Your task to perform on an android device: turn off data saver in the chrome app Image 0: 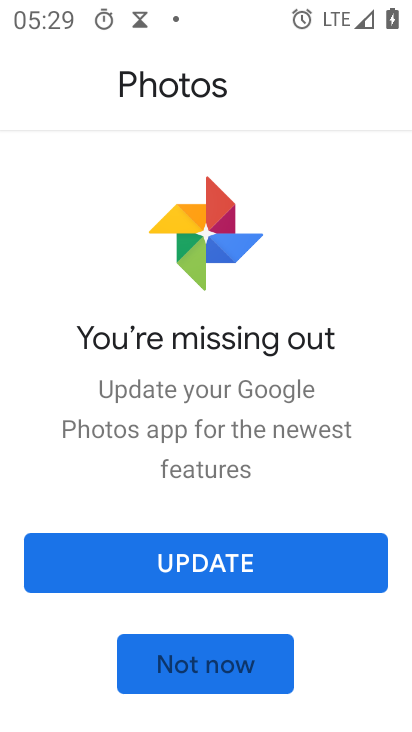
Step 0: press home button
Your task to perform on an android device: turn off data saver in the chrome app Image 1: 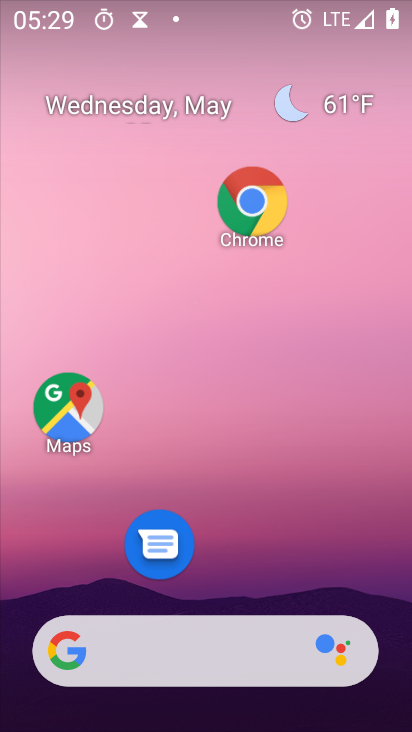
Step 1: drag from (203, 626) to (204, 27)
Your task to perform on an android device: turn off data saver in the chrome app Image 2: 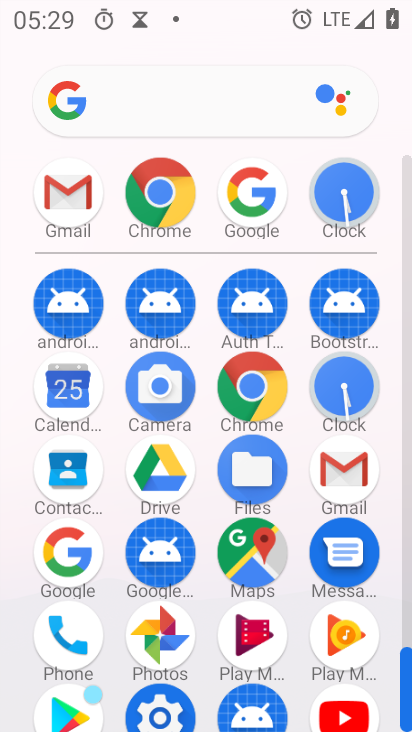
Step 2: click (258, 401)
Your task to perform on an android device: turn off data saver in the chrome app Image 3: 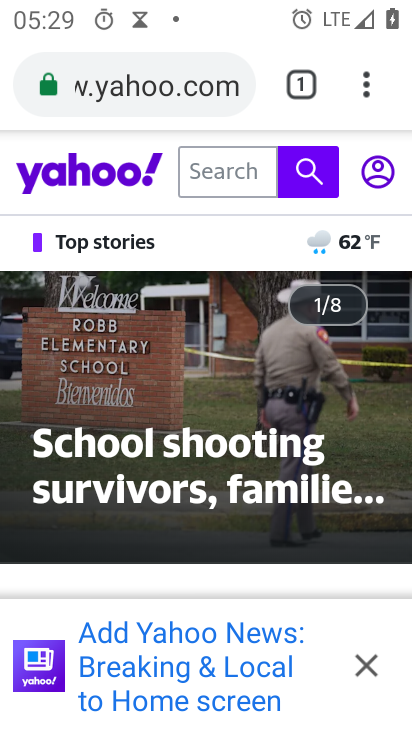
Step 3: click (366, 82)
Your task to perform on an android device: turn off data saver in the chrome app Image 4: 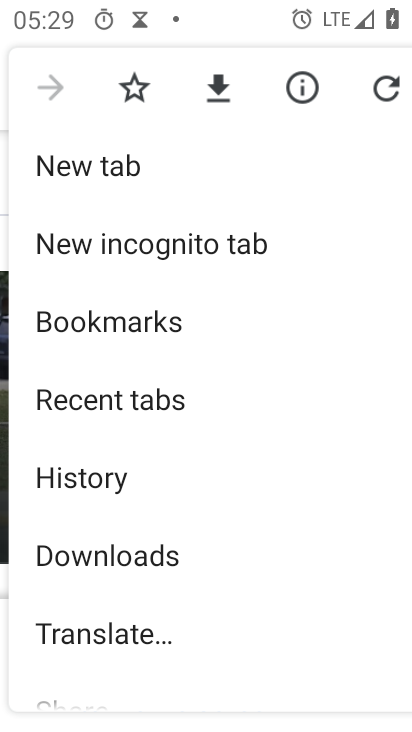
Step 4: drag from (138, 658) to (143, 217)
Your task to perform on an android device: turn off data saver in the chrome app Image 5: 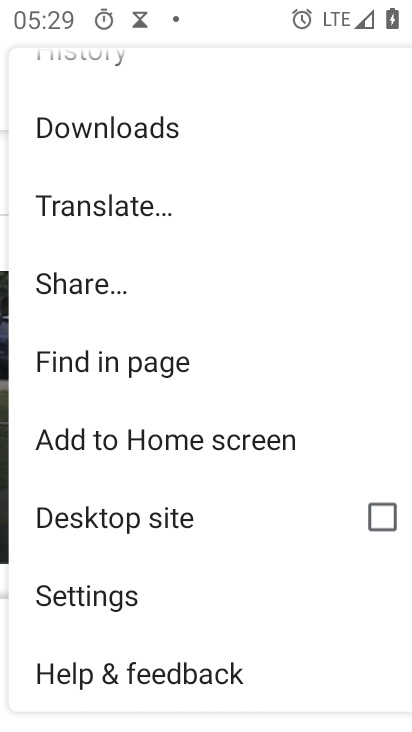
Step 5: click (118, 604)
Your task to perform on an android device: turn off data saver in the chrome app Image 6: 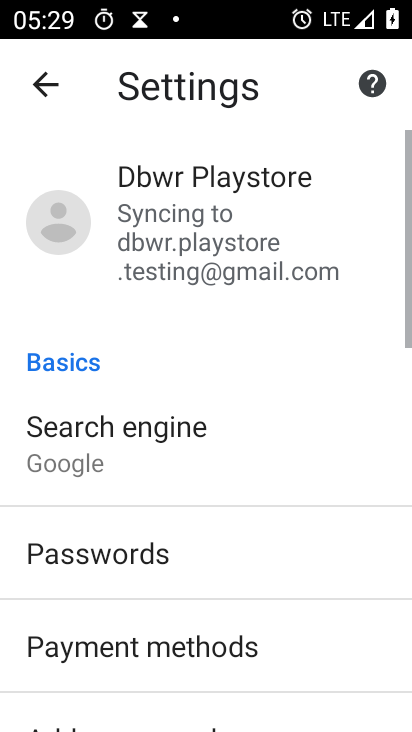
Step 6: drag from (148, 672) to (151, 288)
Your task to perform on an android device: turn off data saver in the chrome app Image 7: 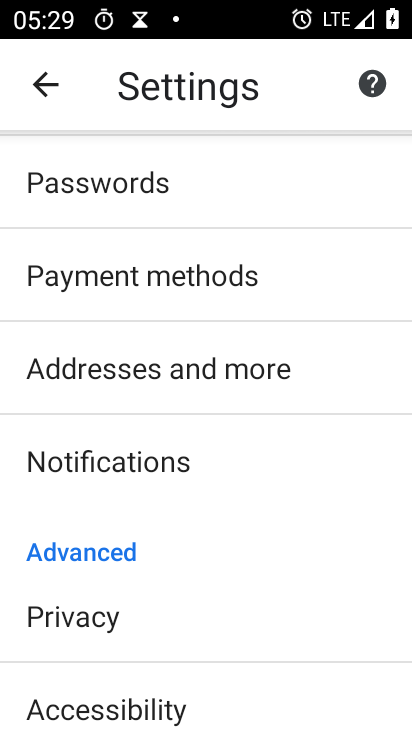
Step 7: drag from (144, 689) to (126, 222)
Your task to perform on an android device: turn off data saver in the chrome app Image 8: 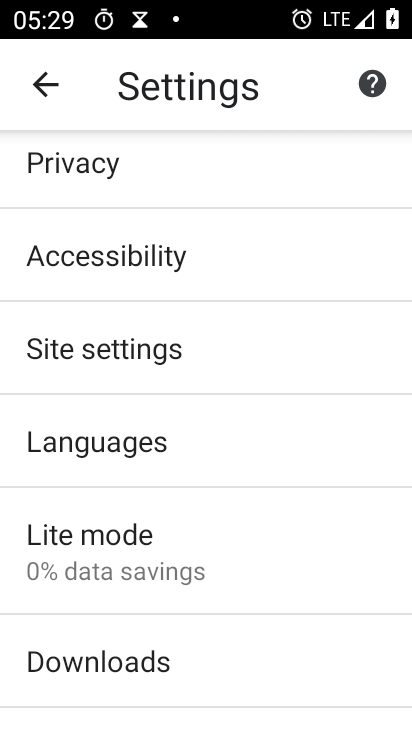
Step 8: click (98, 561)
Your task to perform on an android device: turn off data saver in the chrome app Image 9: 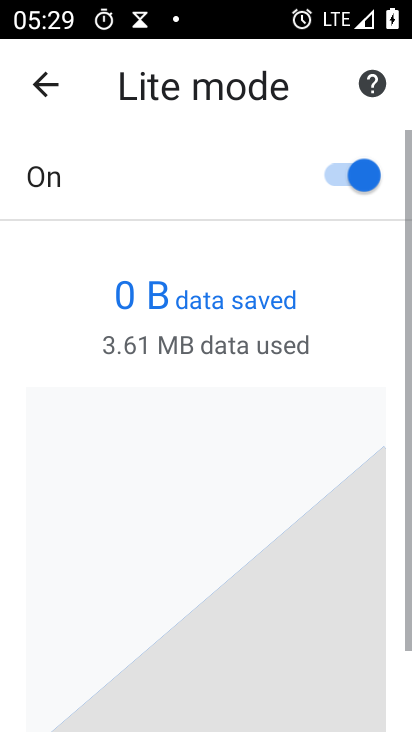
Step 9: click (328, 171)
Your task to perform on an android device: turn off data saver in the chrome app Image 10: 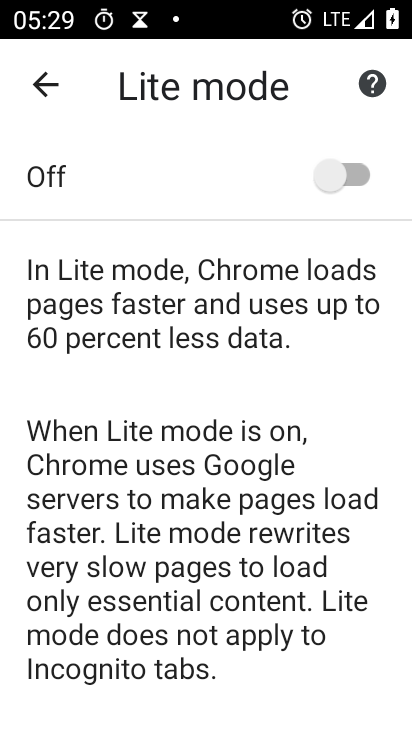
Step 10: task complete